Your task to perform on an android device: Search for Italian restaurants on Maps Image 0: 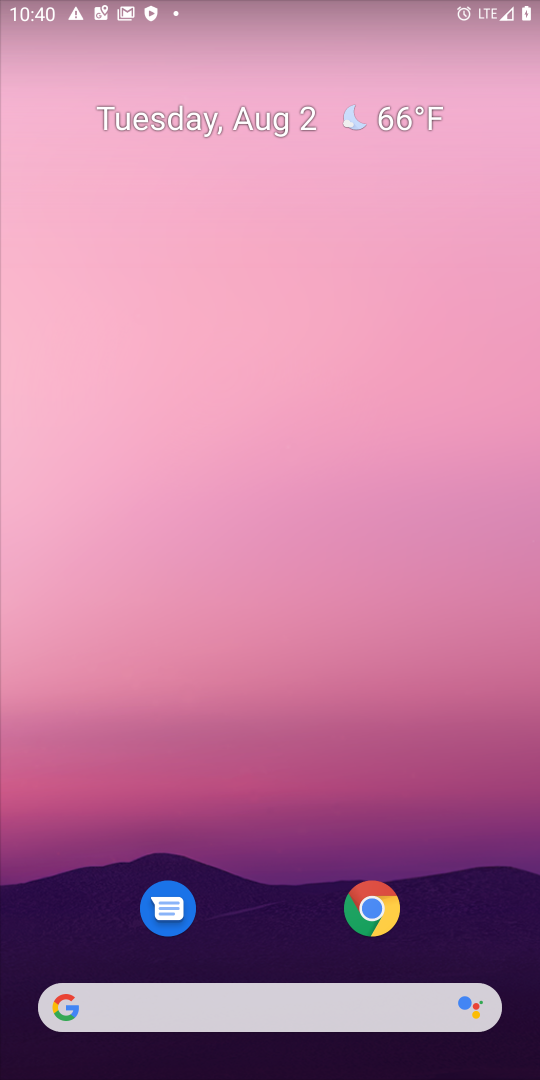
Step 0: drag from (316, 805) to (325, 20)
Your task to perform on an android device: Search for Italian restaurants on Maps Image 1: 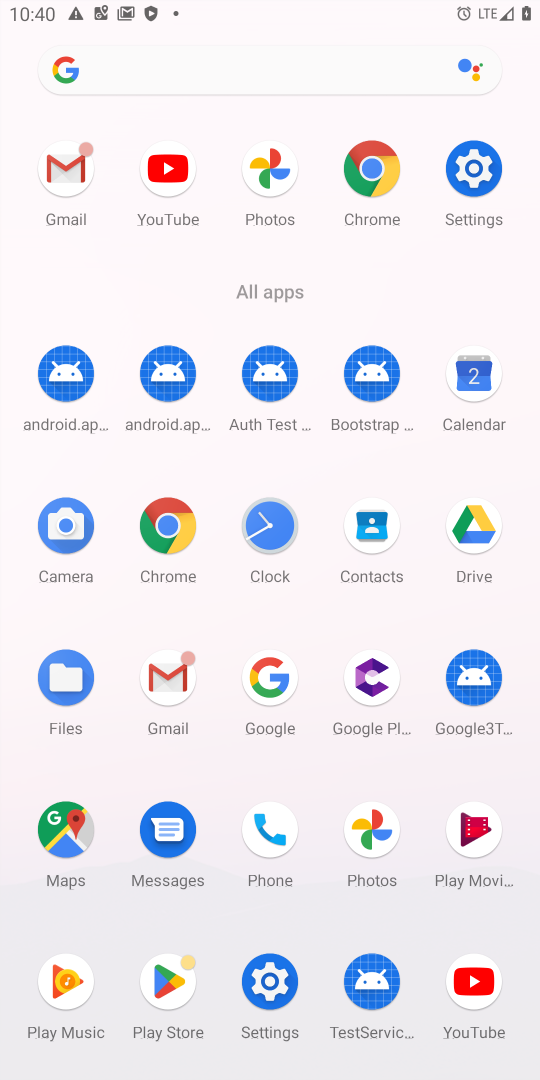
Step 1: click (71, 834)
Your task to perform on an android device: Search for Italian restaurants on Maps Image 2: 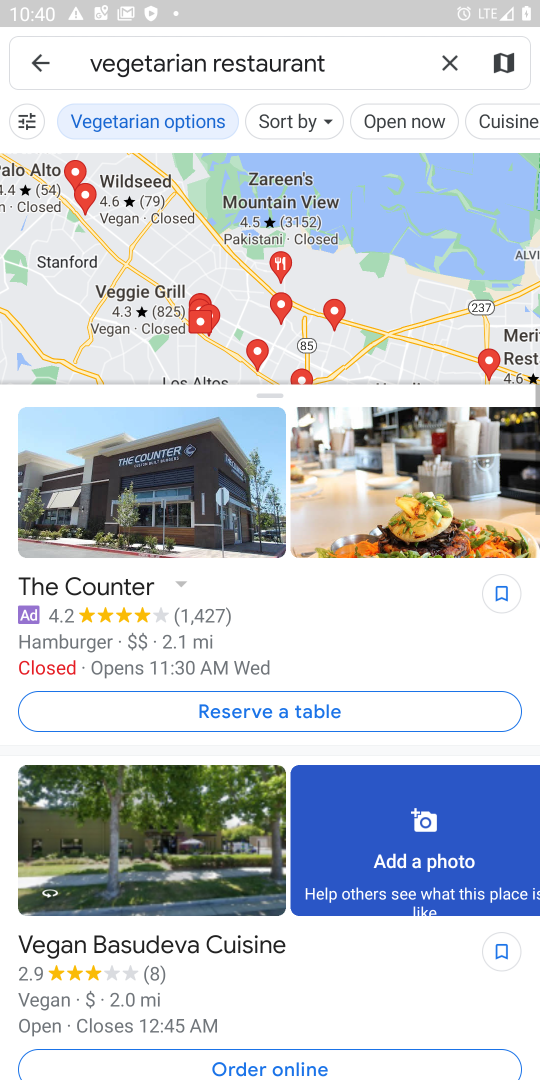
Step 2: click (442, 69)
Your task to perform on an android device: Search for Italian restaurants on Maps Image 3: 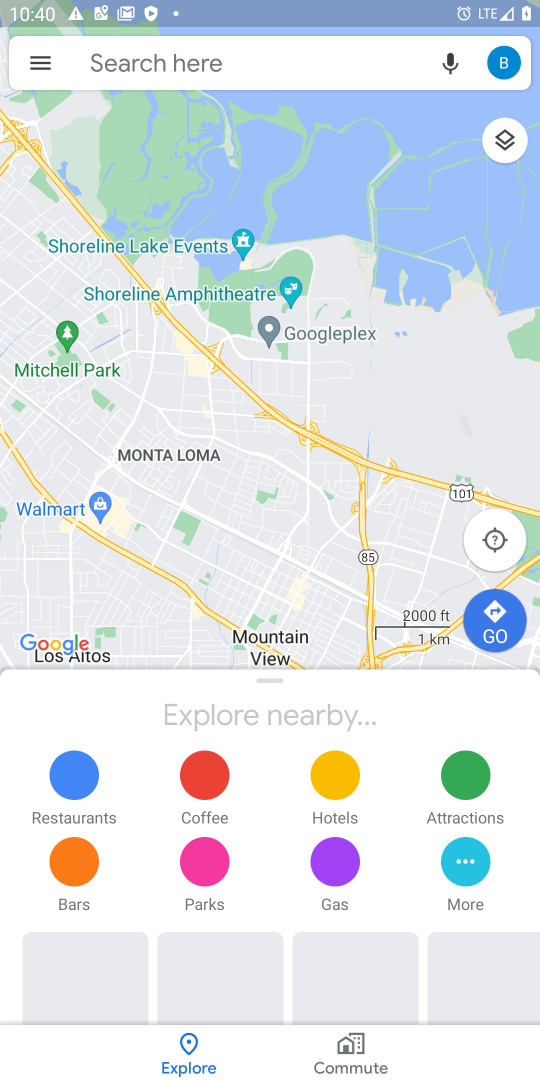
Step 3: click (258, 68)
Your task to perform on an android device: Search for Italian restaurants on Maps Image 4: 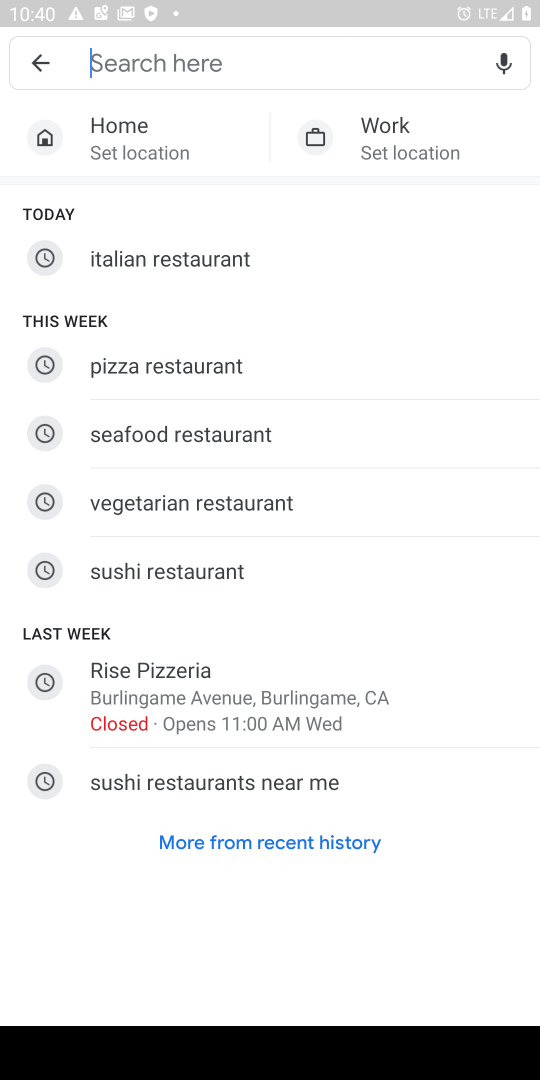
Step 4: type "Italian restaurants "
Your task to perform on an android device: Search for Italian restaurants on Maps Image 5: 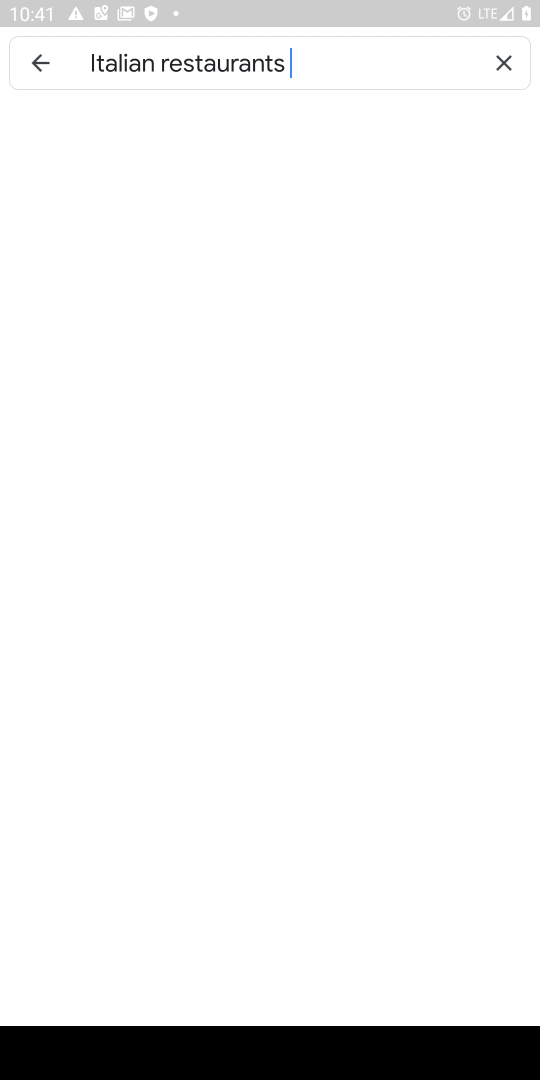
Step 5: type ""
Your task to perform on an android device: Search for Italian restaurants on Maps Image 6: 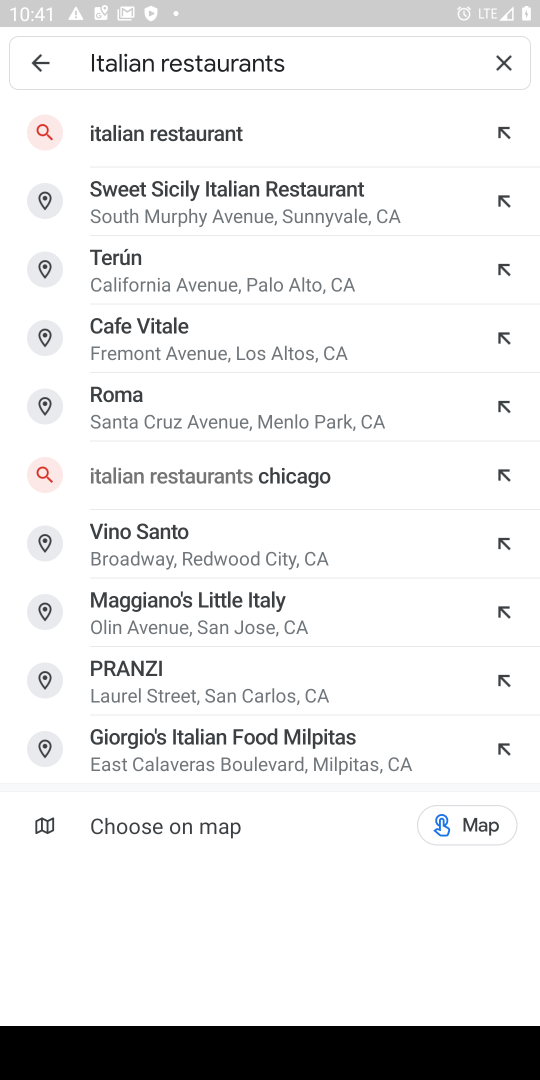
Step 6: click (281, 124)
Your task to perform on an android device: Search for Italian restaurants on Maps Image 7: 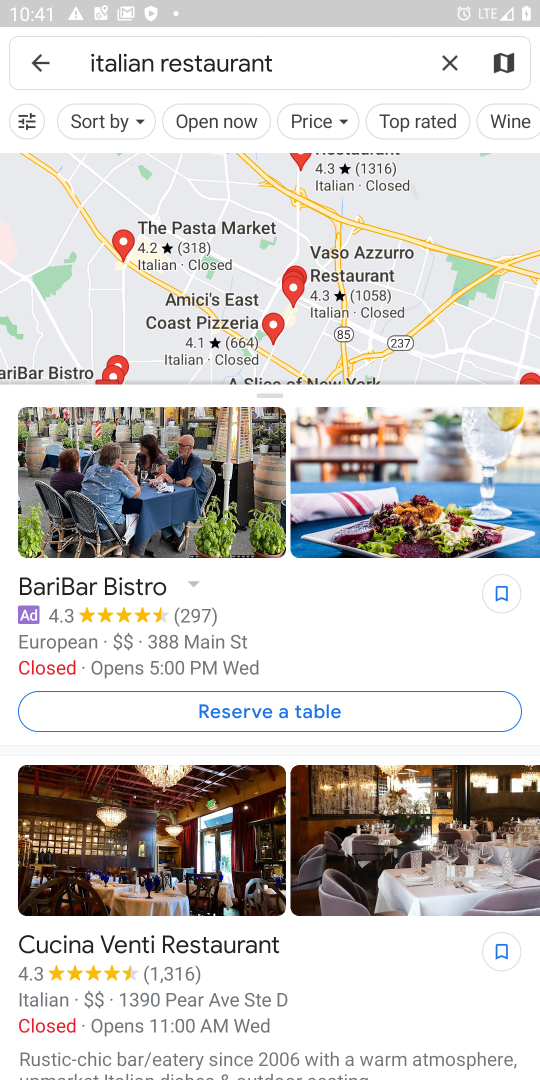
Step 7: task complete